Your task to perform on an android device: Open sound settings Image 0: 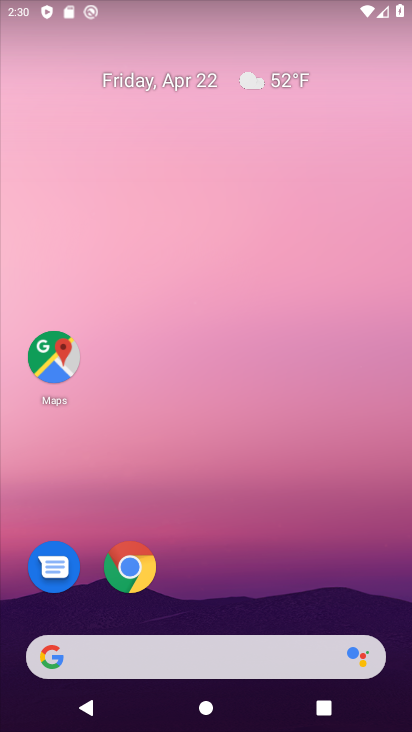
Step 0: drag from (253, 581) to (244, 50)
Your task to perform on an android device: Open sound settings Image 1: 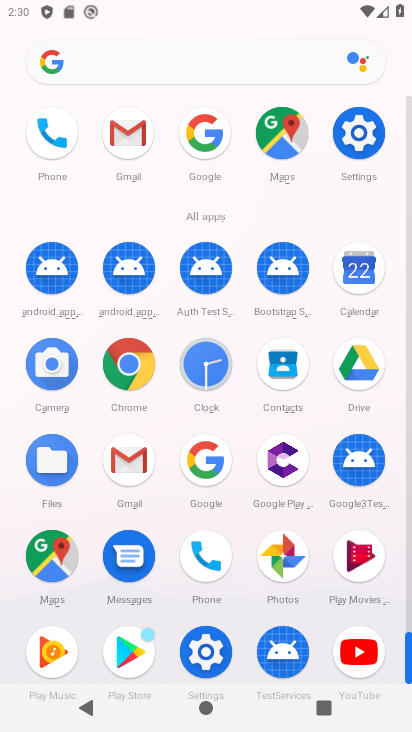
Step 1: click (349, 137)
Your task to perform on an android device: Open sound settings Image 2: 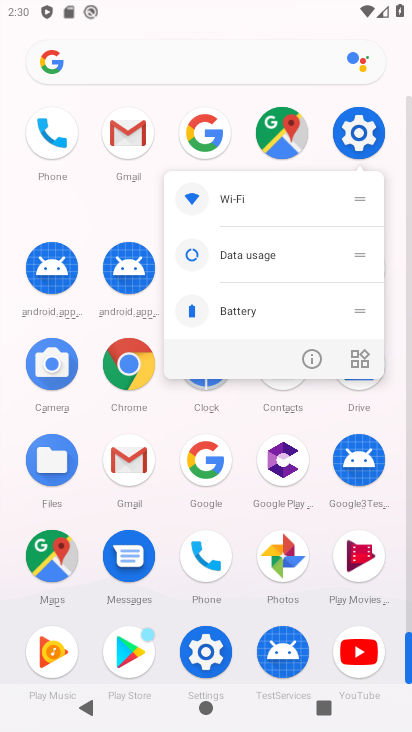
Step 2: click (351, 136)
Your task to perform on an android device: Open sound settings Image 3: 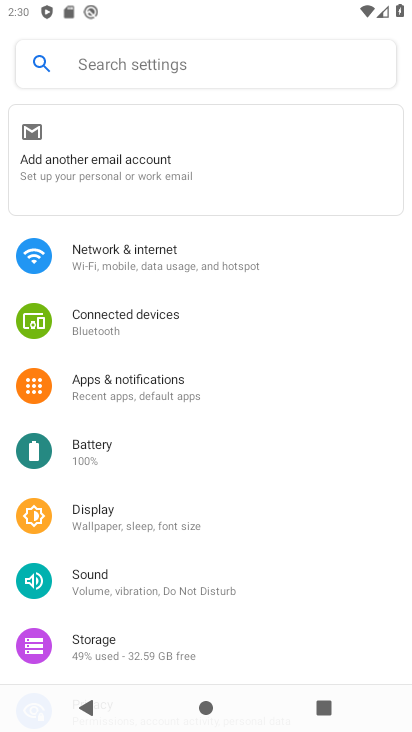
Step 3: click (122, 575)
Your task to perform on an android device: Open sound settings Image 4: 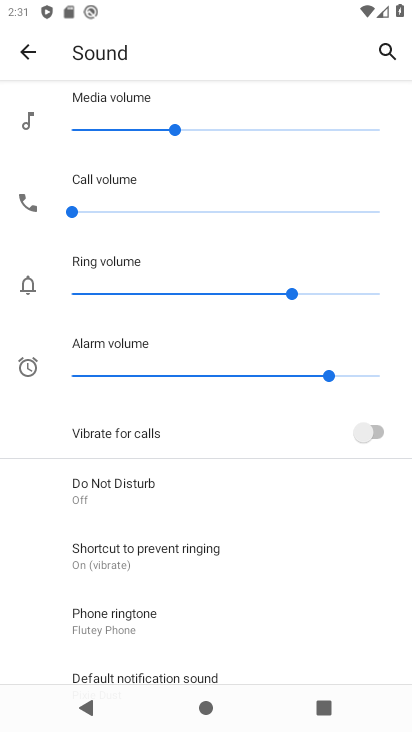
Step 4: task complete